Your task to perform on an android device: Open Google Chrome and open the bookmarks view Image 0: 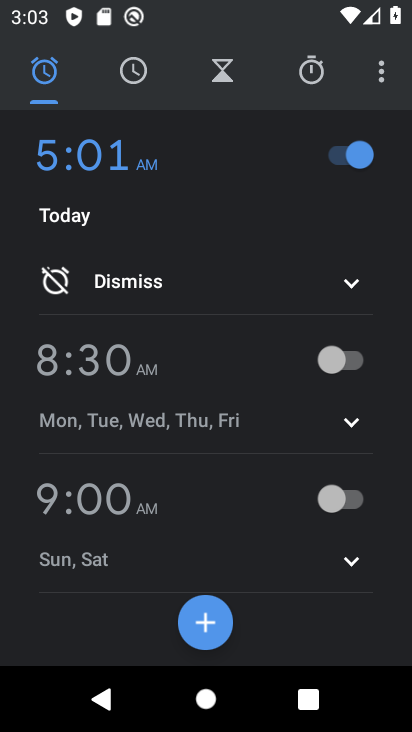
Step 0: press home button
Your task to perform on an android device: Open Google Chrome and open the bookmarks view Image 1: 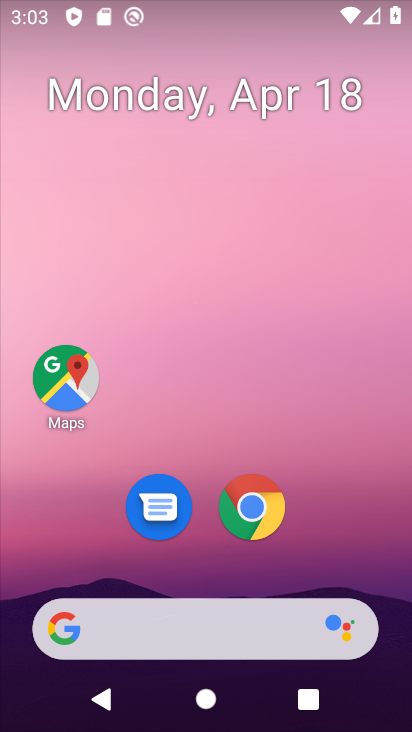
Step 1: click (274, 519)
Your task to perform on an android device: Open Google Chrome and open the bookmarks view Image 2: 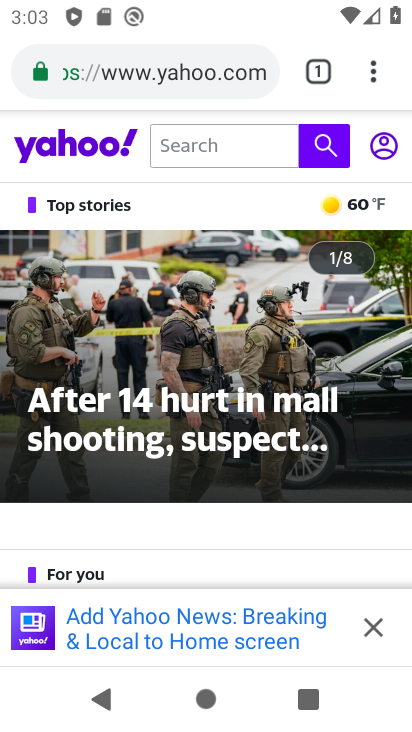
Step 2: click (374, 62)
Your task to perform on an android device: Open Google Chrome and open the bookmarks view Image 3: 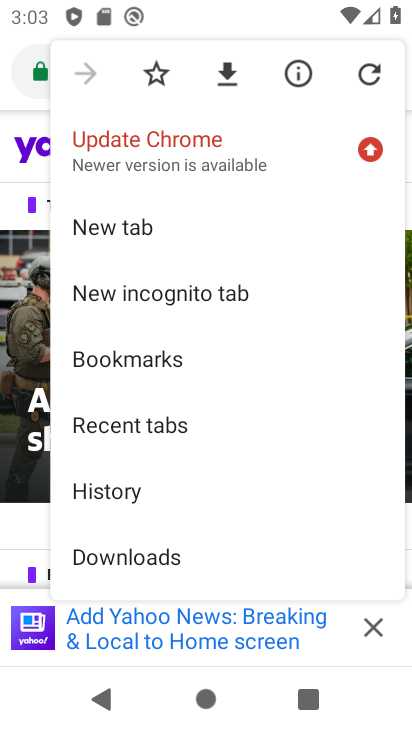
Step 3: click (178, 345)
Your task to perform on an android device: Open Google Chrome and open the bookmarks view Image 4: 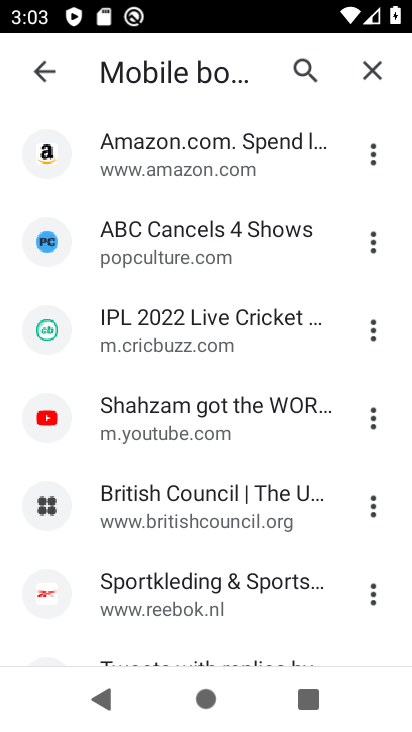
Step 4: task complete